Your task to perform on an android device: turn off translation in the chrome app Image 0: 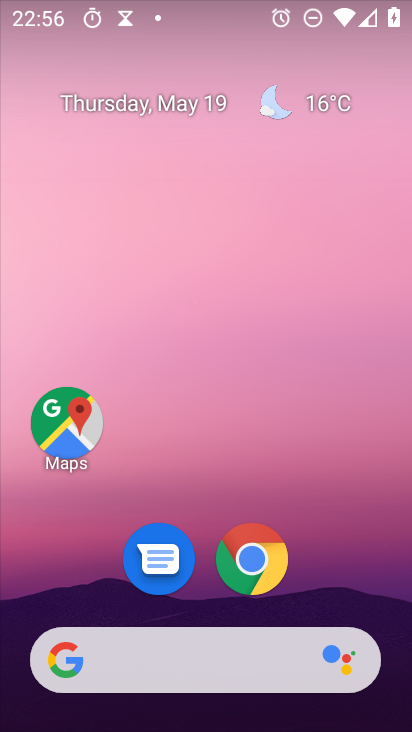
Step 0: click (258, 560)
Your task to perform on an android device: turn off translation in the chrome app Image 1: 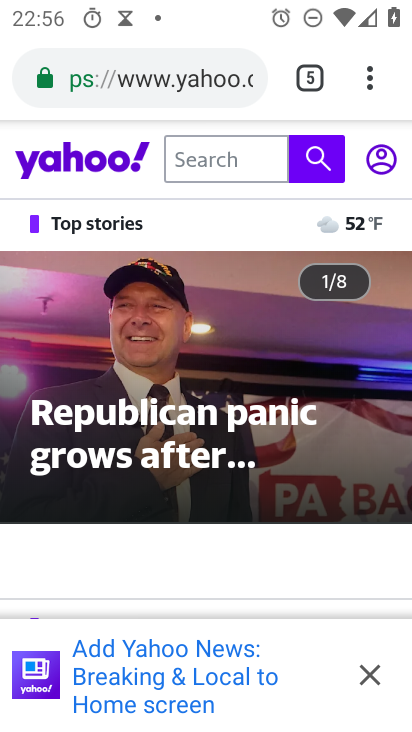
Step 1: click (370, 88)
Your task to perform on an android device: turn off translation in the chrome app Image 2: 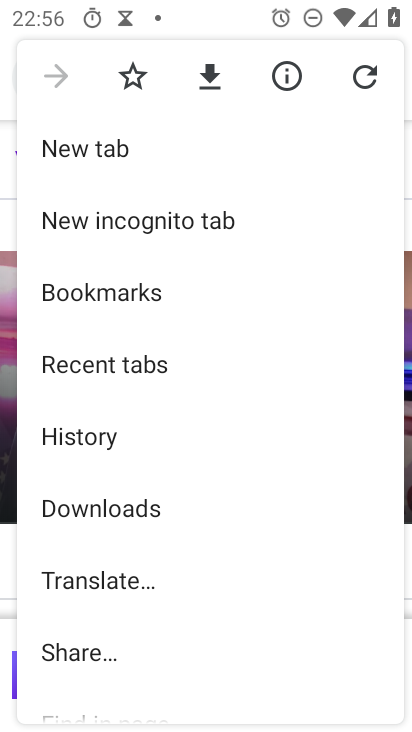
Step 2: drag from (166, 647) to (168, 191)
Your task to perform on an android device: turn off translation in the chrome app Image 3: 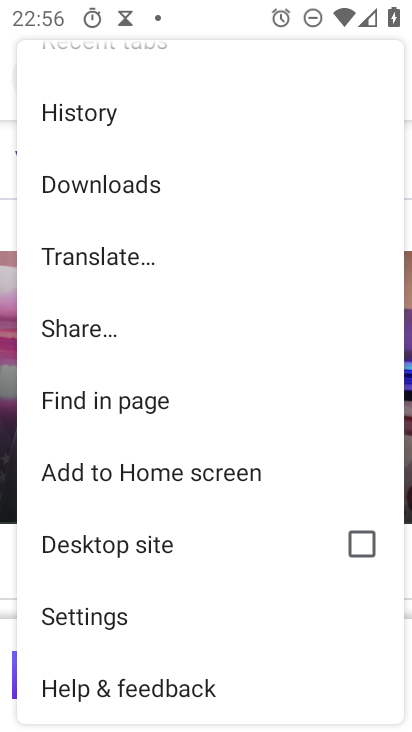
Step 3: click (117, 615)
Your task to perform on an android device: turn off translation in the chrome app Image 4: 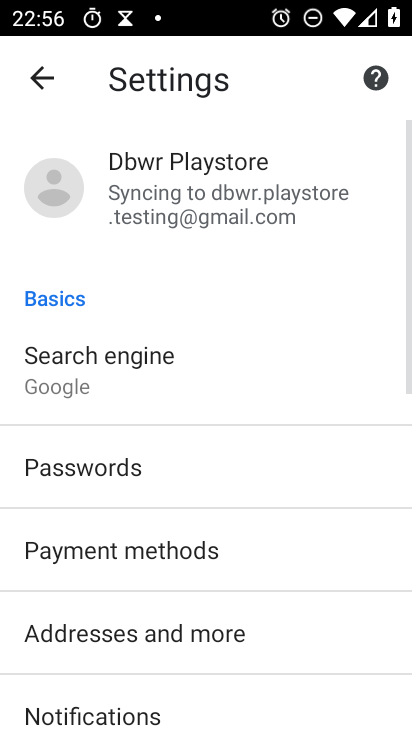
Step 4: drag from (165, 686) to (164, 437)
Your task to perform on an android device: turn off translation in the chrome app Image 5: 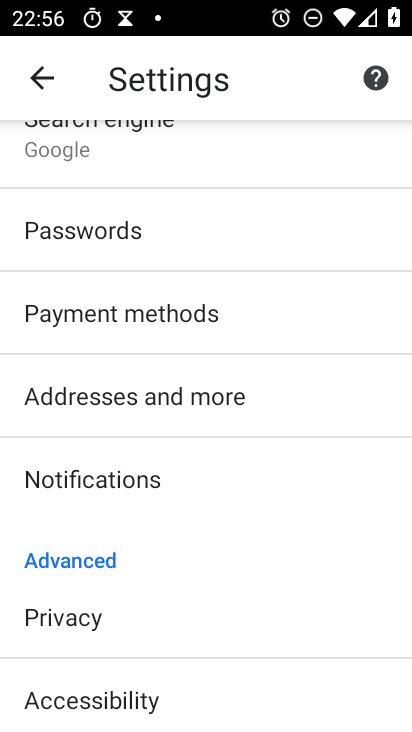
Step 5: drag from (134, 655) to (161, 273)
Your task to perform on an android device: turn off translation in the chrome app Image 6: 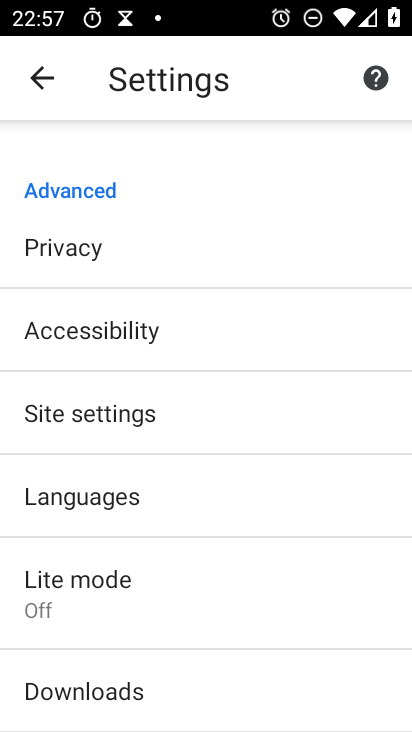
Step 6: click (90, 491)
Your task to perform on an android device: turn off translation in the chrome app Image 7: 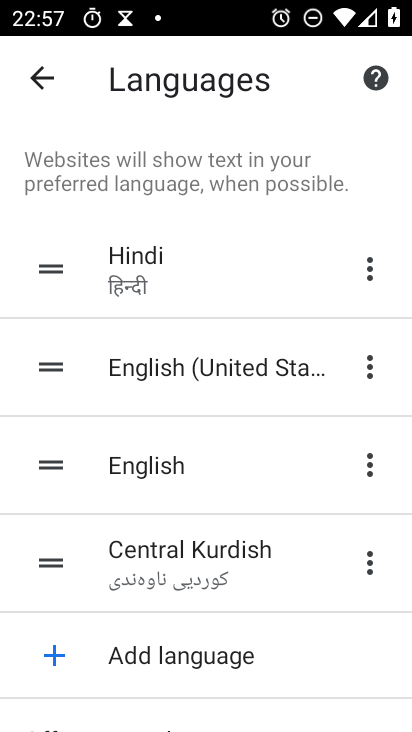
Step 7: drag from (175, 632) to (177, 319)
Your task to perform on an android device: turn off translation in the chrome app Image 8: 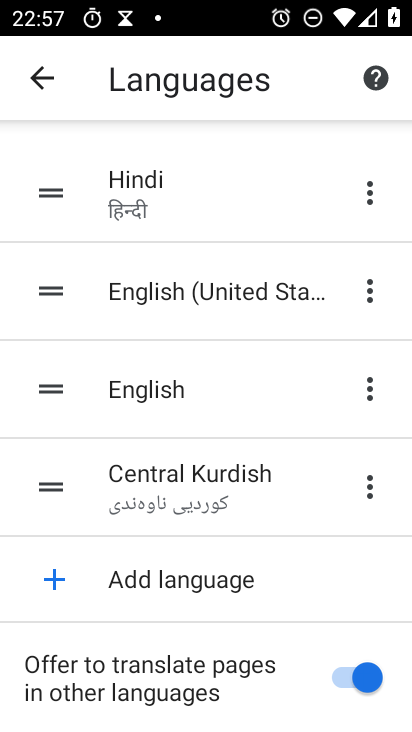
Step 8: click (345, 674)
Your task to perform on an android device: turn off translation in the chrome app Image 9: 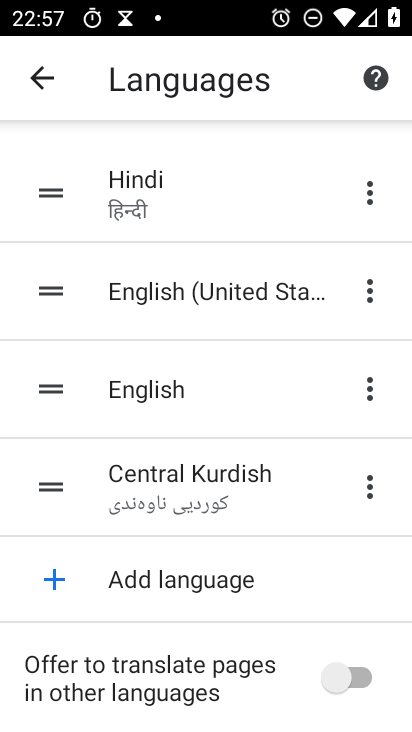
Step 9: task complete